Your task to perform on an android device: empty trash in the gmail app Image 0: 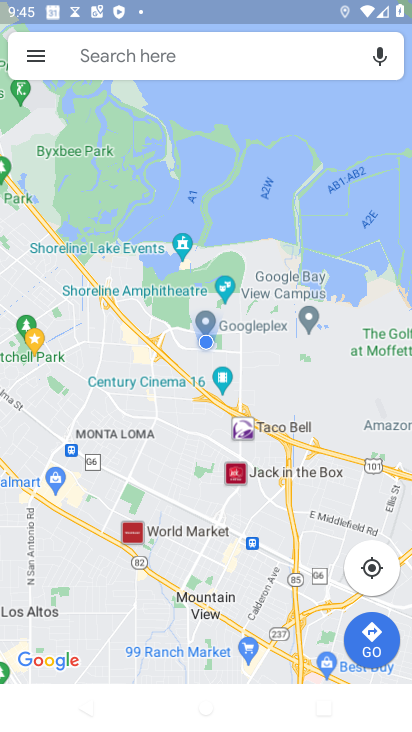
Step 0: press home button
Your task to perform on an android device: empty trash in the gmail app Image 1: 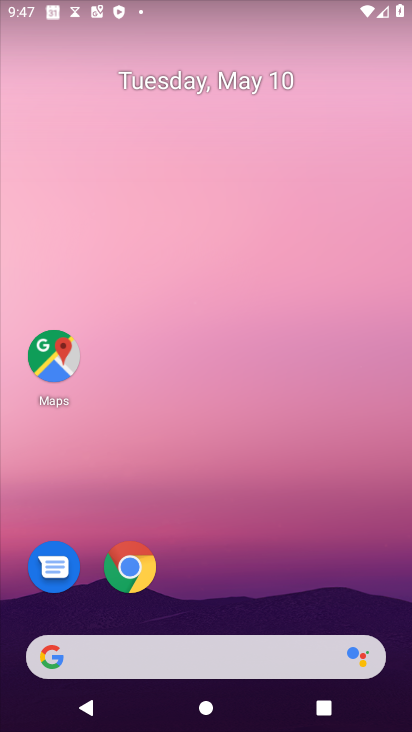
Step 1: drag from (49, 596) to (259, 110)
Your task to perform on an android device: empty trash in the gmail app Image 2: 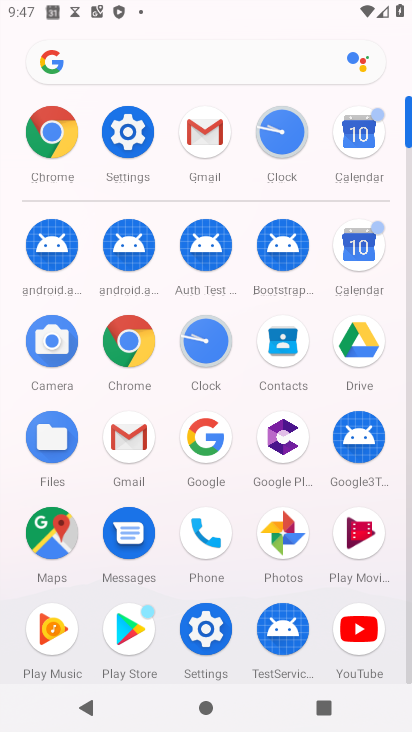
Step 2: click (120, 439)
Your task to perform on an android device: empty trash in the gmail app Image 3: 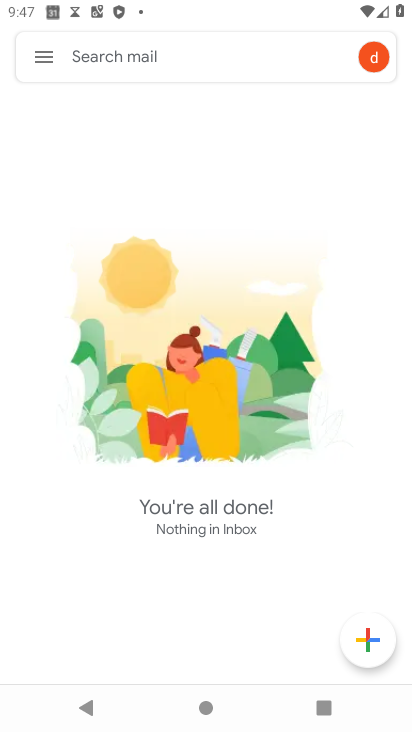
Step 3: click (38, 51)
Your task to perform on an android device: empty trash in the gmail app Image 4: 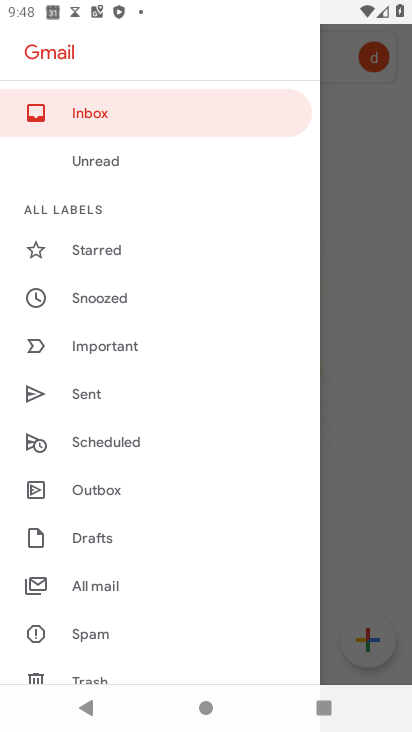
Step 4: click (81, 676)
Your task to perform on an android device: empty trash in the gmail app Image 5: 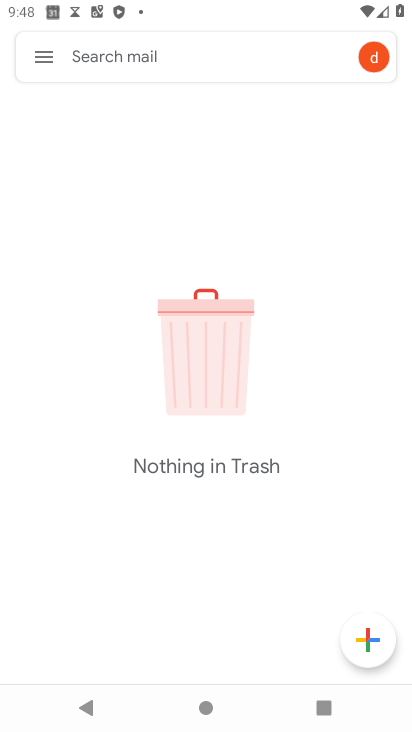
Step 5: task complete